Your task to perform on an android device: Open Reddit.com Image 0: 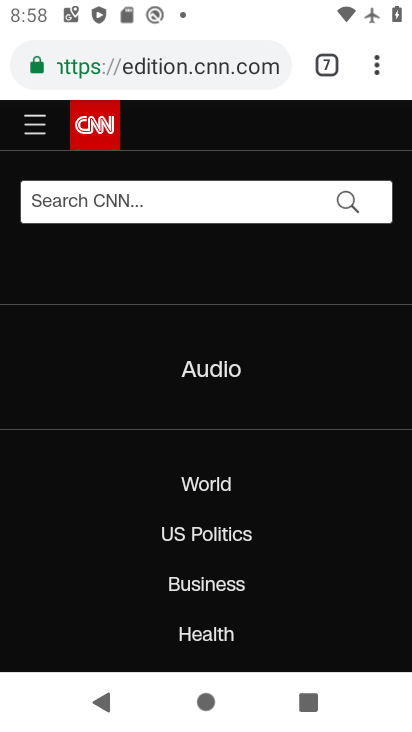
Step 0: press home button
Your task to perform on an android device: Open Reddit.com Image 1: 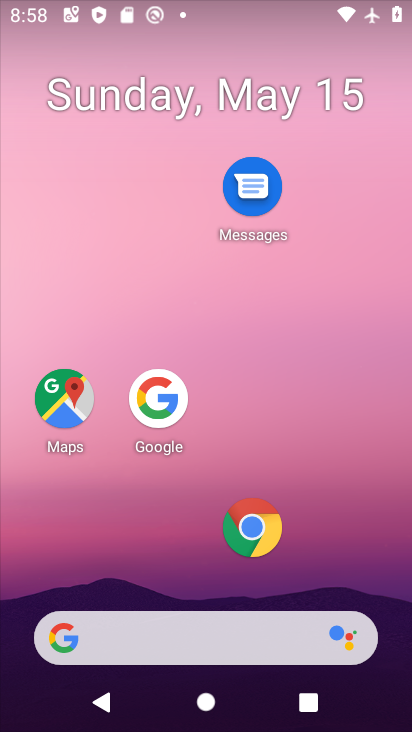
Step 1: drag from (215, 638) to (351, 96)
Your task to perform on an android device: Open Reddit.com Image 2: 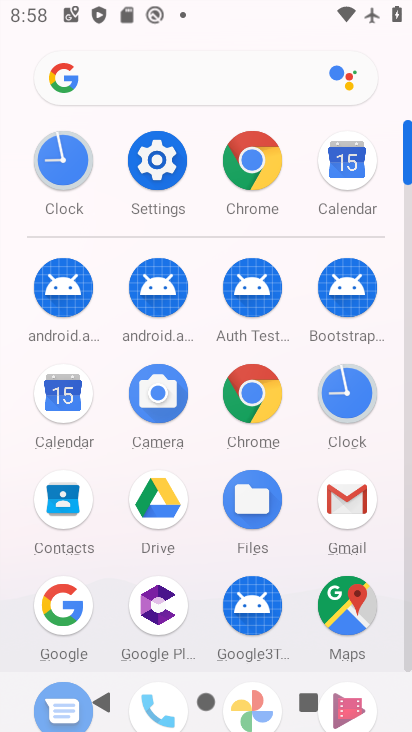
Step 2: click (244, 179)
Your task to perform on an android device: Open Reddit.com Image 3: 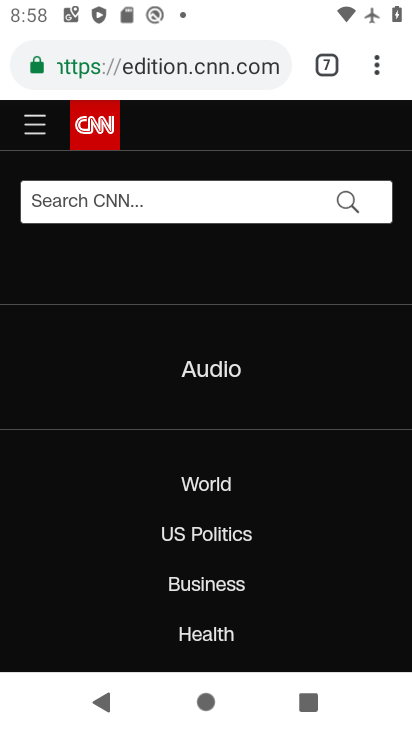
Step 3: drag from (374, 73) to (282, 145)
Your task to perform on an android device: Open Reddit.com Image 4: 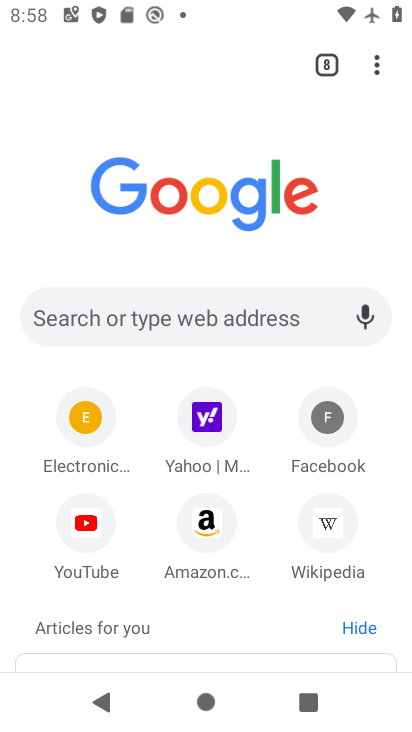
Step 4: click (131, 317)
Your task to perform on an android device: Open Reddit.com Image 5: 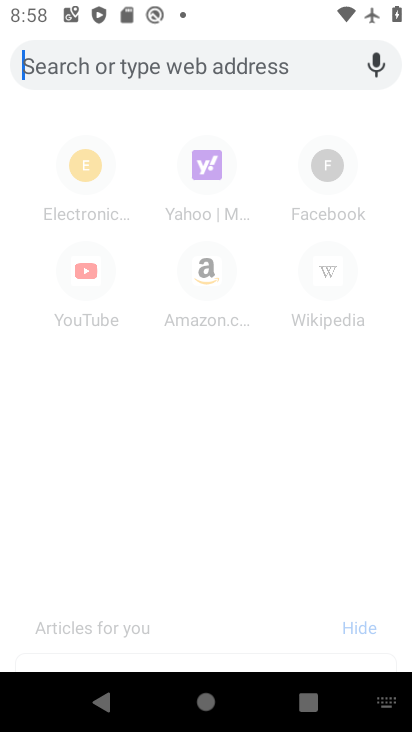
Step 5: type "reddit.com"
Your task to perform on an android device: Open Reddit.com Image 6: 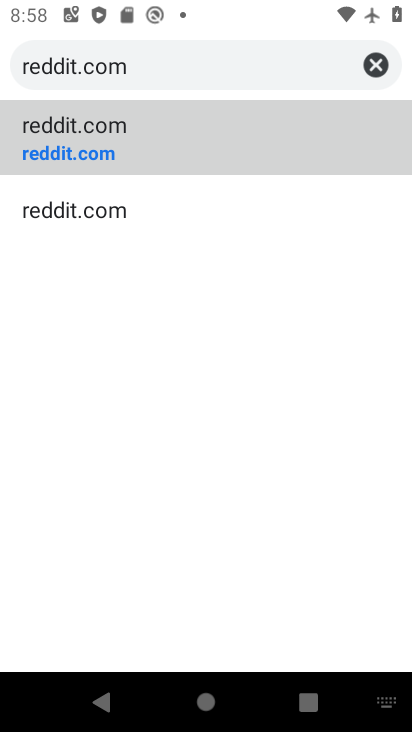
Step 6: click (97, 138)
Your task to perform on an android device: Open Reddit.com Image 7: 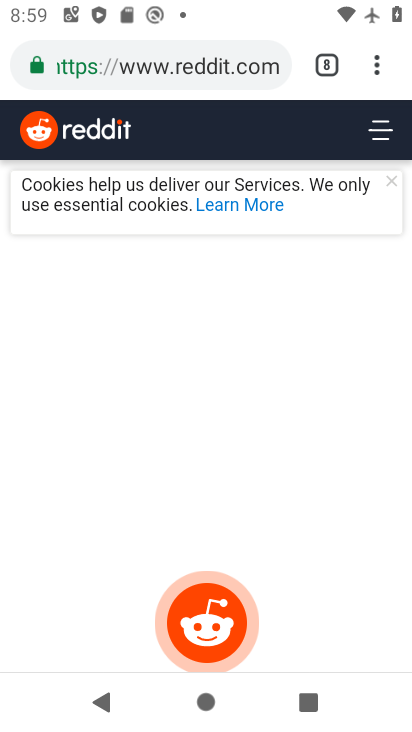
Step 7: task complete